Your task to perform on an android device: change keyboard looks Image 0: 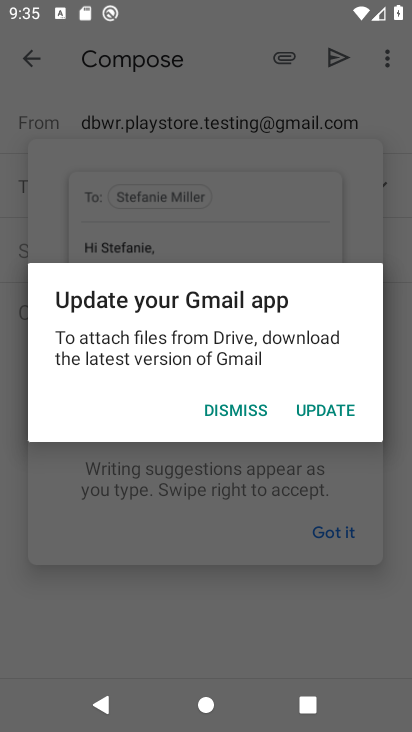
Step 0: press home button
Your task to perform on an android device: change keyboard looks Image 1: 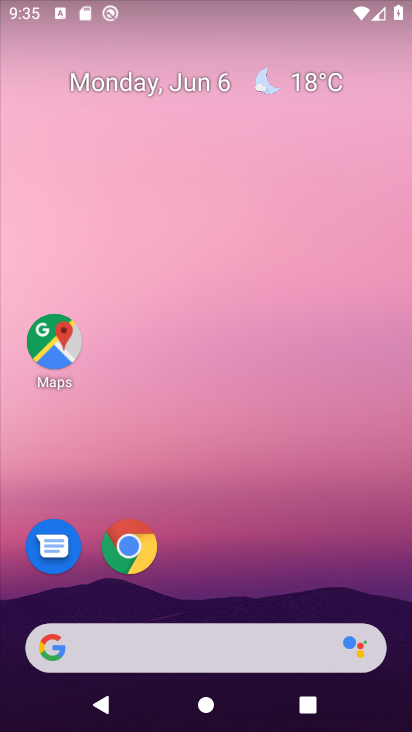
Step 1: drag from (391, 612) to (333, 112)
Your task to perform on an android device: change keyboard looks Image 2: 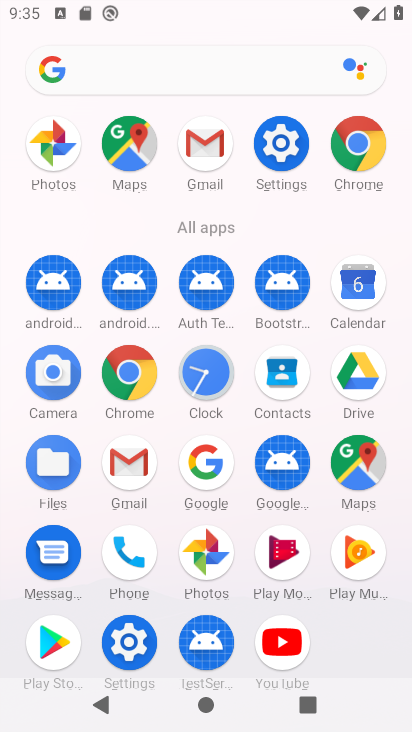
Step 2: click (129, 639)
Your task to perform on an android device: change keyboard looks Image 3: 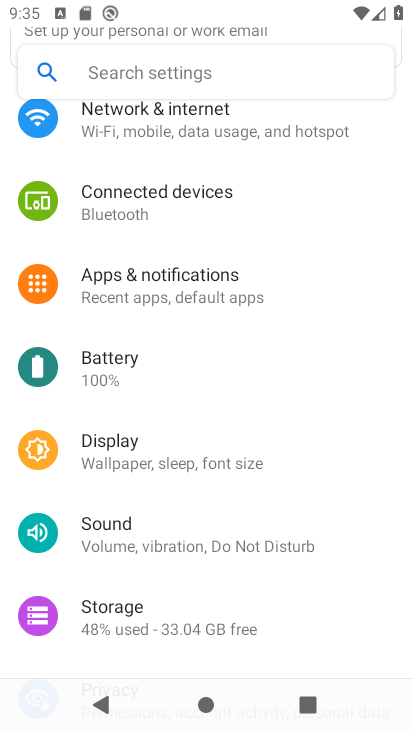
Step 3: drag from (359, 619) to (328, 159)
Your task to perform on an android device: change keyboard looks Image 4: 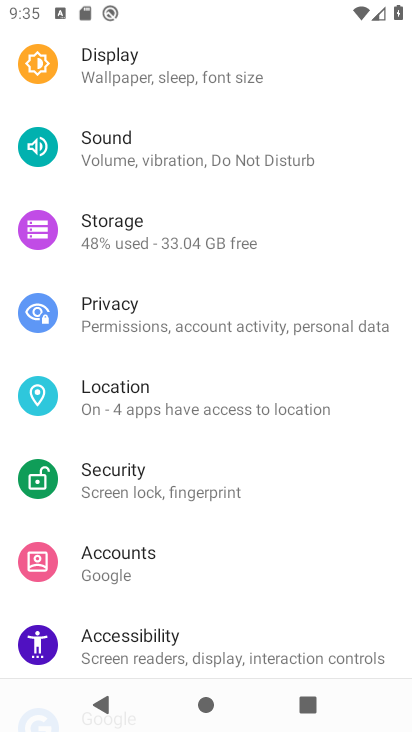
Step 4: drag from (344, 564) to (349, 115)
Your task to perform on an android device: change keyboard looks Image 5: 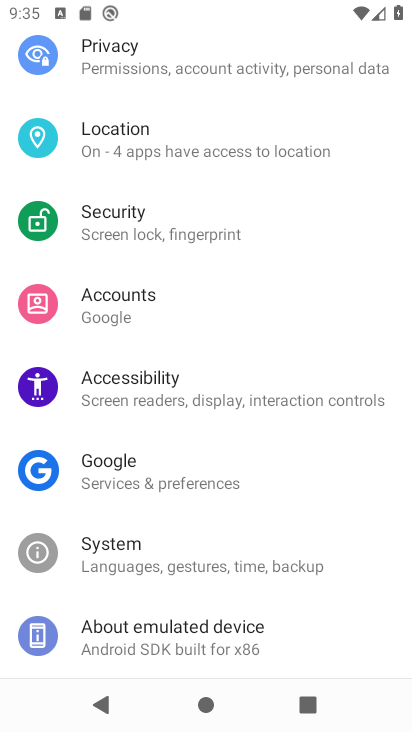
Step 5: click (108, 557)
Your task to perform on an android device: change keyboard looks Image 6: 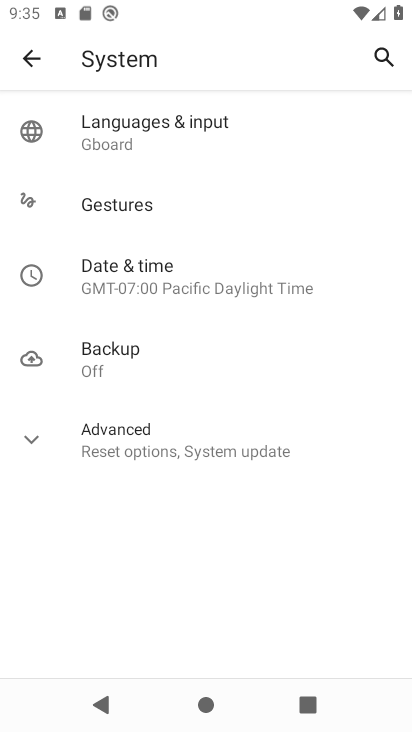
Step 6: click (117, 143)
Your task to perform on an android device: change keyboard looks Image 7: 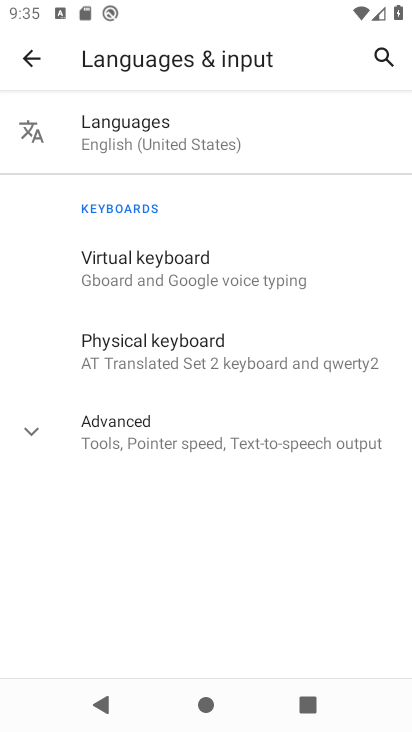
Step 7: click (117, 352)
Your task to perform on an android device: change keyboard looks Image 8: 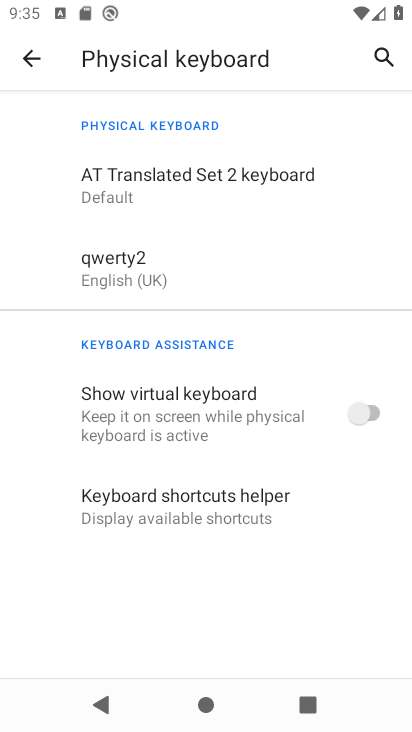
Step 8: click (128, 252)
Your task to perform on an android device: change keyboard looks Image 9: 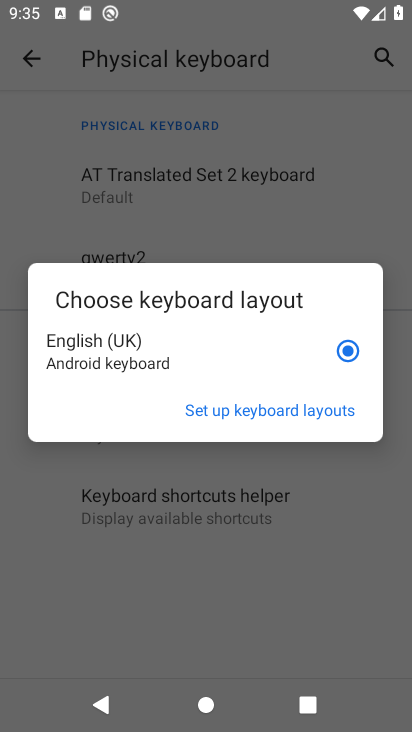
Step 9: click (274, 407)
Your task to perform on an android device: change keyboard looks Image 10: 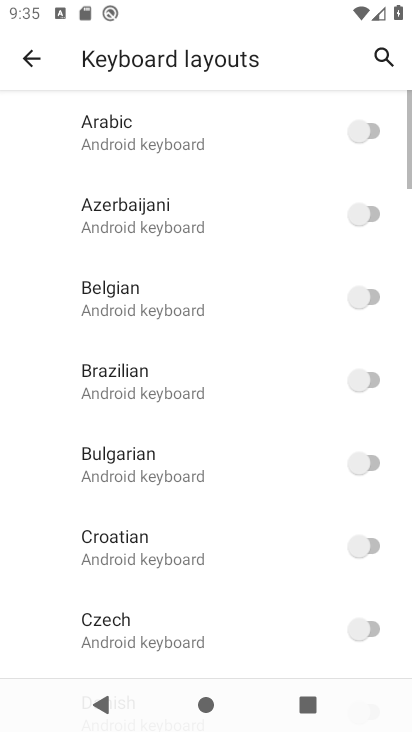
Step 10: drag from (220, 627) to (225, 119)
Your task to perform on an android device: change keyboard looks Image 11: 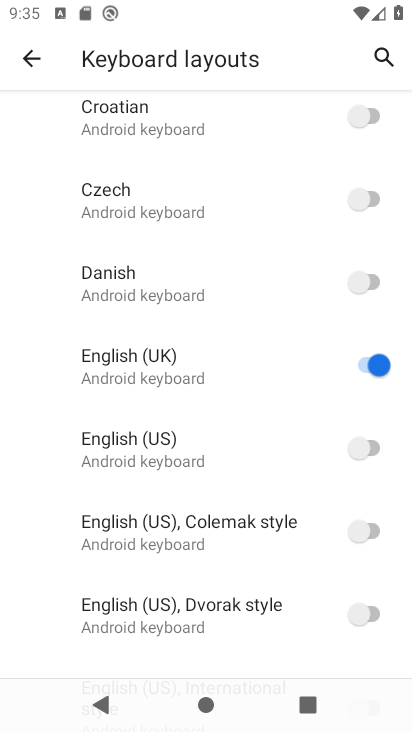
Step 11: click (370, 608)
Your task to perform on an android device: change keyboard looks Image 12: 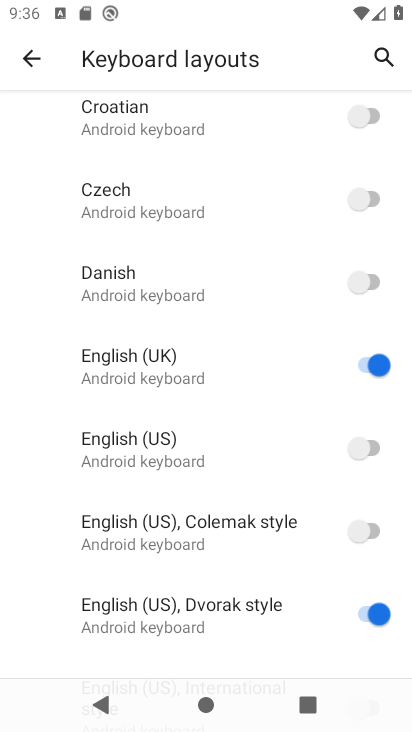
Step 12: task complete